Your task to perform on an android device: open app "DuckDuckGo Privacy Browser" (install if not already installed) and go to login screen Image 0: 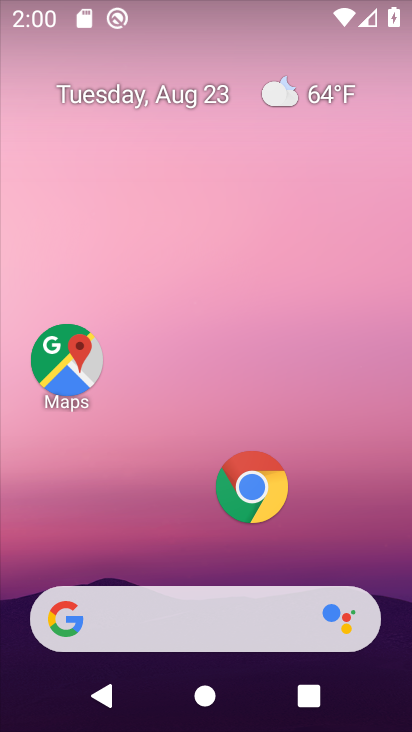
Step 0: drag from (191, 571) to (162, 221)
Your task to perform on an android device: open app "DuckDuckGo Privacy Browser" (install if not already installed) and go to login screen Image 1: 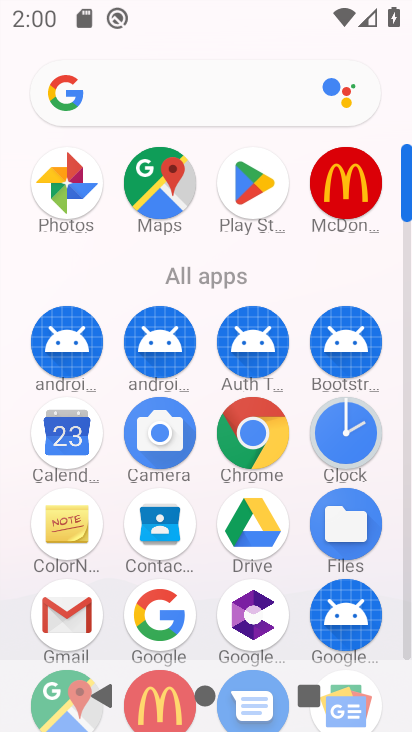
Step 1: click (249, 178)
Your task to perform on an android device: open app "DuckDuckGo Privacy Browser" (install if not already installed) and go to login screen Image 2: 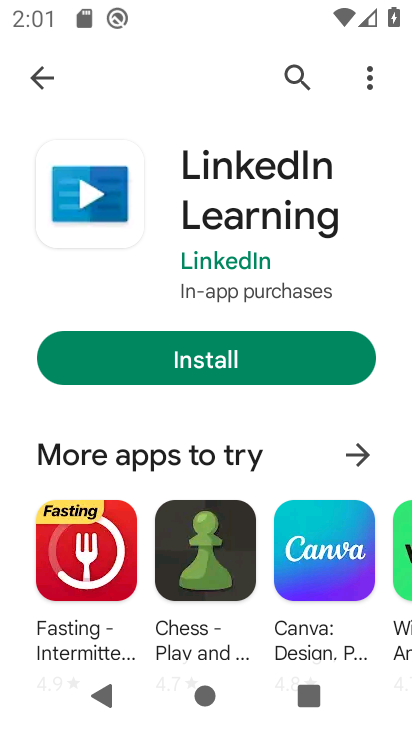
Step 2: click (38, 79)
Your task to perform on an android device: open app "DuckDuckGo Privacy Browser" (install if not already installed) and go to login screen Image 3: 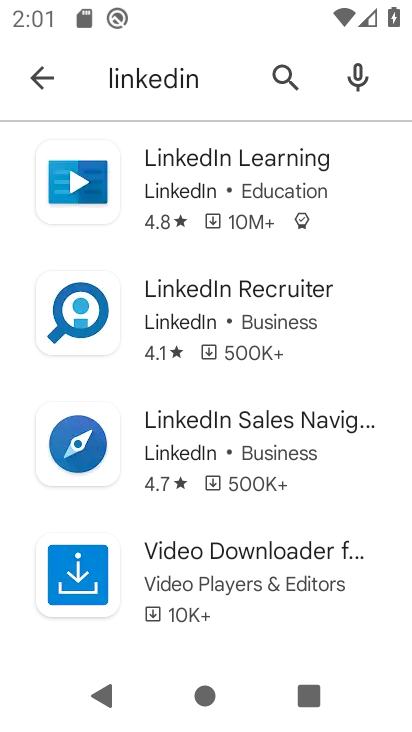
Step 3: click (38, 87)
Your task to perform on an android device: open app "DuckDuckGo Privacy Browser" (install if not already installed) and go to login screen Image 4: 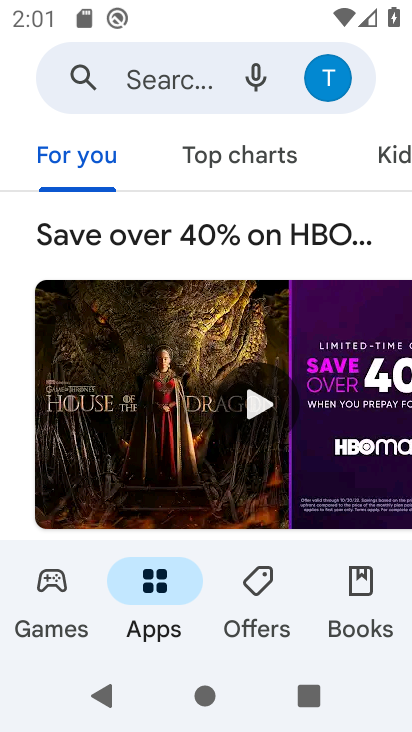
Step 4: click (181, 75)
Your task to perform on an android device: open app "DuckDuckGo Privacy Browser" (install if not already installed) and go to login screen Image 5: 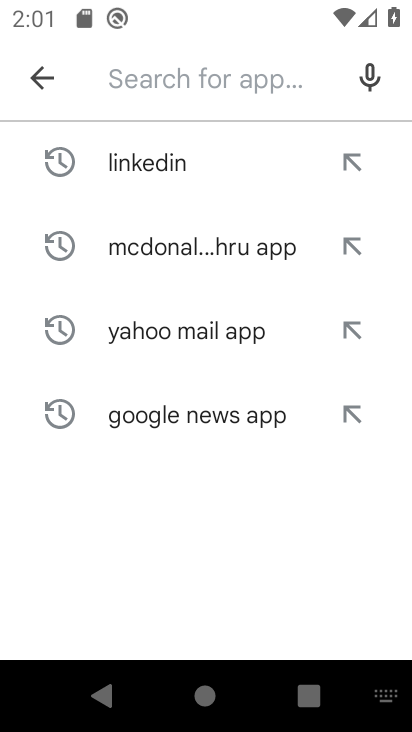
Step 5: type "DuckDuckGo Privacy Browse "
Your task to perform on an android device: open app "DuckDuckGo Privacy Browser" (install if not already installed) and go to login screen Image 6: 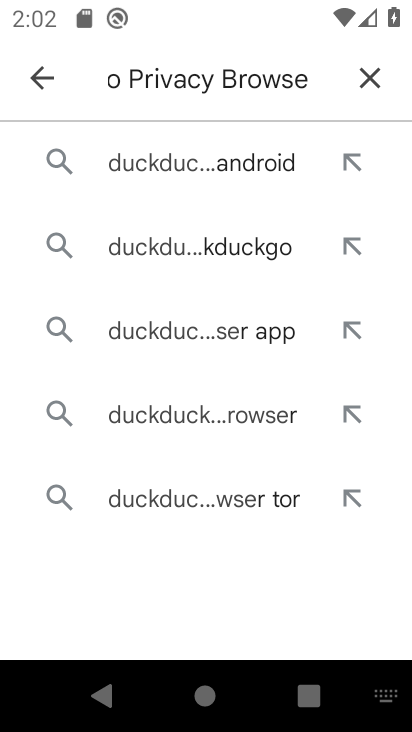
Step 6: click (149, 155)
Your task to perform on an android device: open app "DuckDuckGo Privacy Browser" (install if not already installed) and go to login screen Image 7: 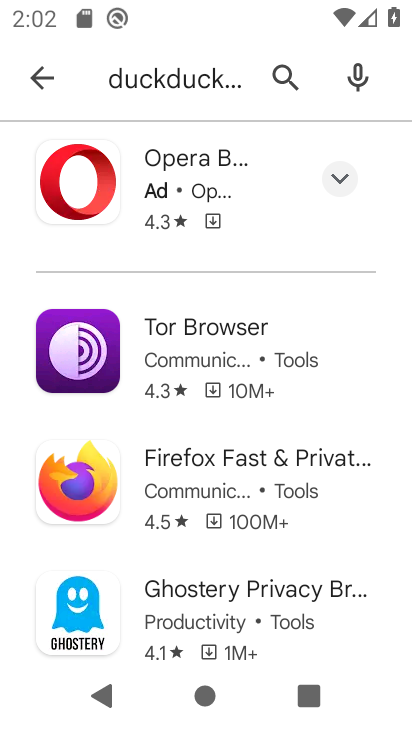
Step 7: task complete